Your task to perform on an android device: turn on bluetooth scan Image 0: 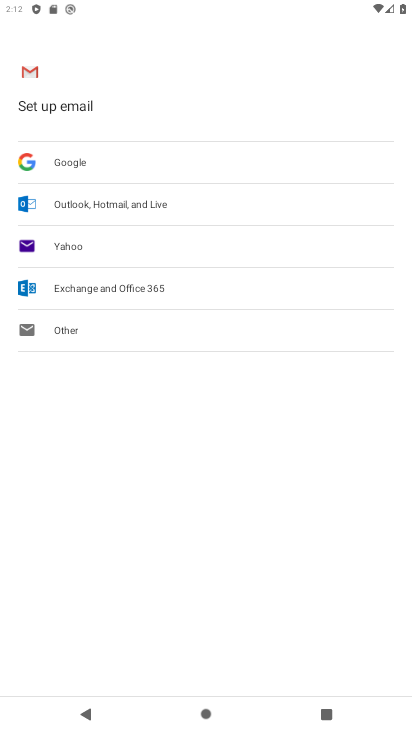
Step 0: press home button
Your task to perform on an android device: turn on bluetooth scan Image 1: 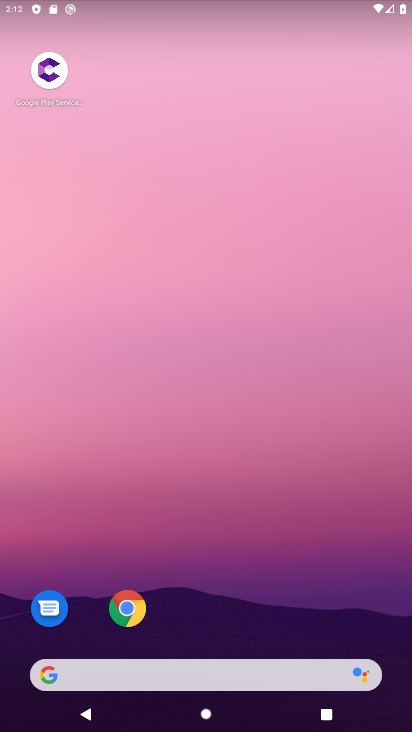
Step 1: drag from (255, 599) to (249, 192)
Your task to perform on an android device: turn on bluetooth scan Image 2: 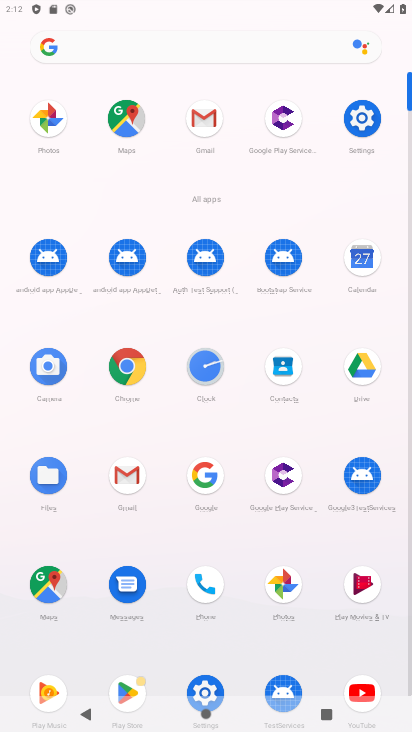
Step 2: click (378, 122)
Your task to perform on an android device: turn on bluetooth scan Image 3: 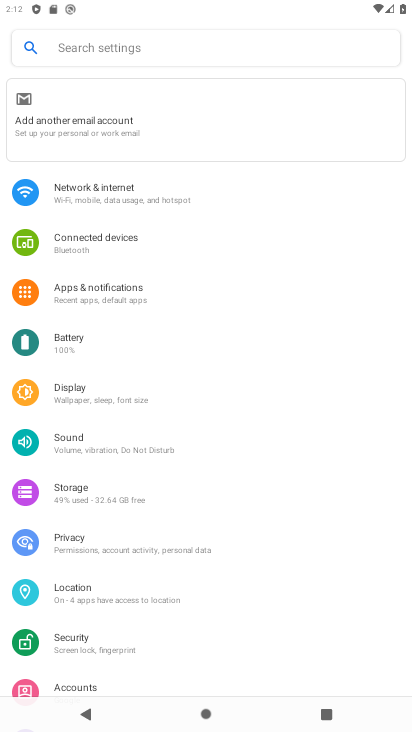
Step 3: click (86, 243)
Your task to perform on an android device: turn on bluetooth scan Image 4: 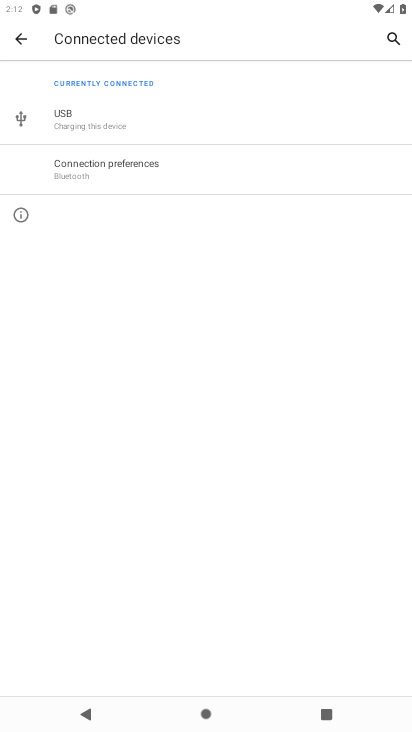
Step 4: click (152, 167)
Your task to perform on an android device: turn on bluetooth scan Image 5: 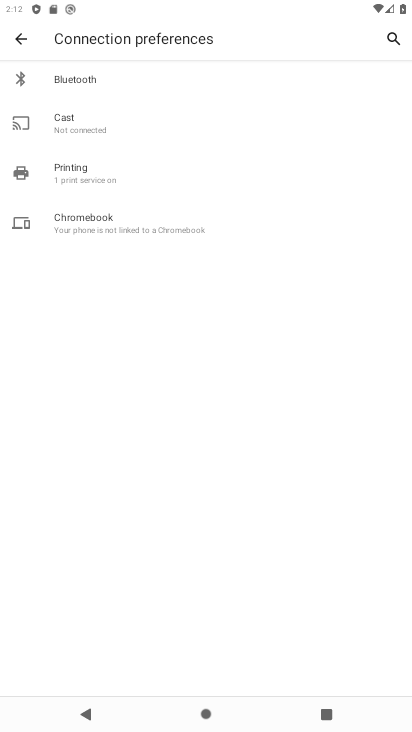
Step 5: task complete